Your task to perform on an android device: Open settings on Google Maps Image 0: 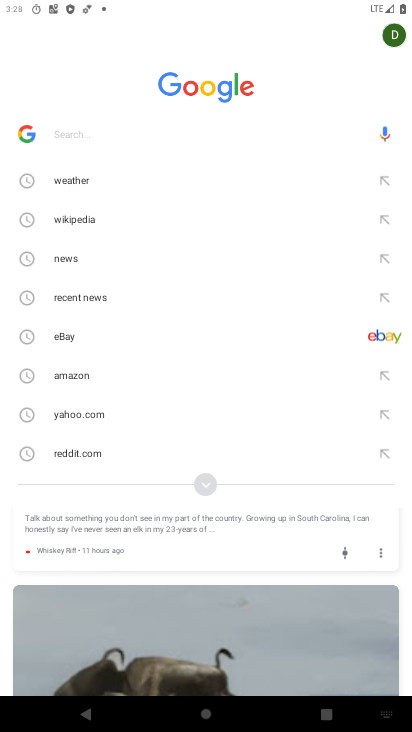
Step 0: press home button
Your task to perform on an android device: Open settings on Google Maps Image 1: 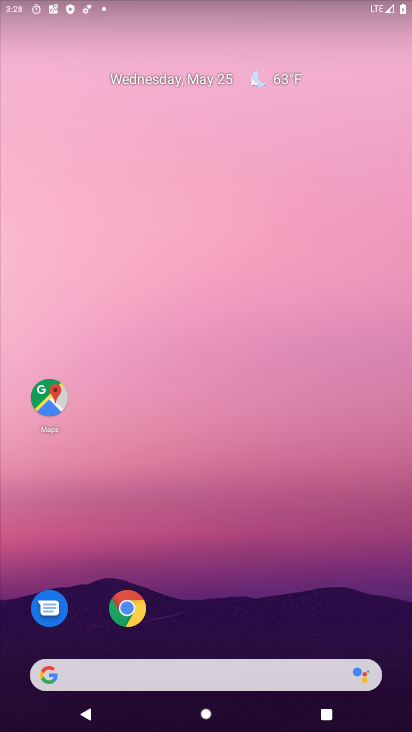
Step 1: click (54, 403)
Your task to perform on an android device: Open settings on Google Maps Image 2: 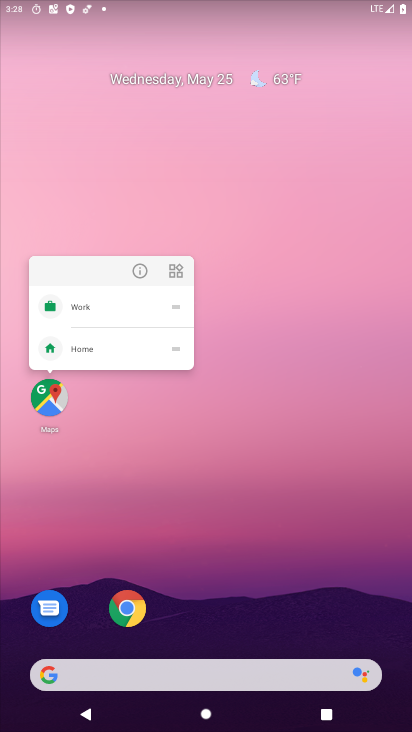
Step 2: click (54, 403)
Your task to perform on an android device: Open settings on Google Maps Image 3: 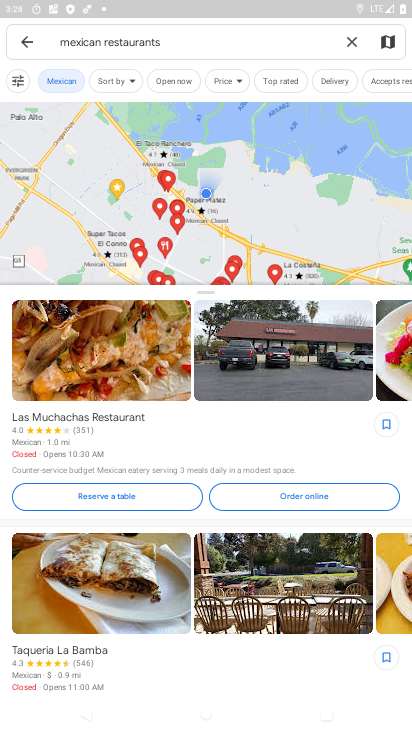
Step 3: task complete